Your task to perform on an android device: turn off improve location accuracy Image 0: 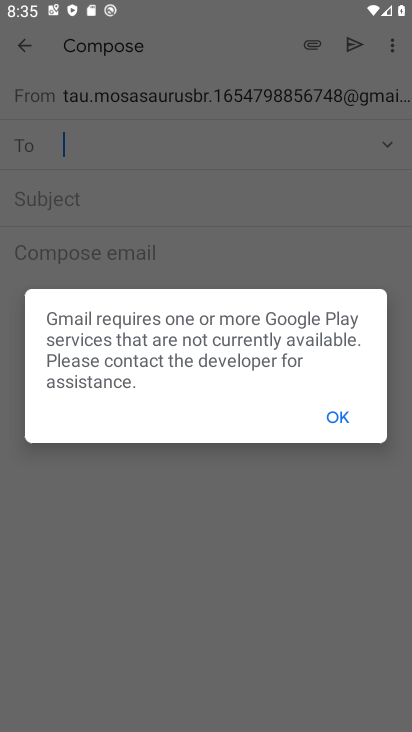
Step 0: press home button
Your task to perform on an android device: turn off improve location accuracy Image 1: 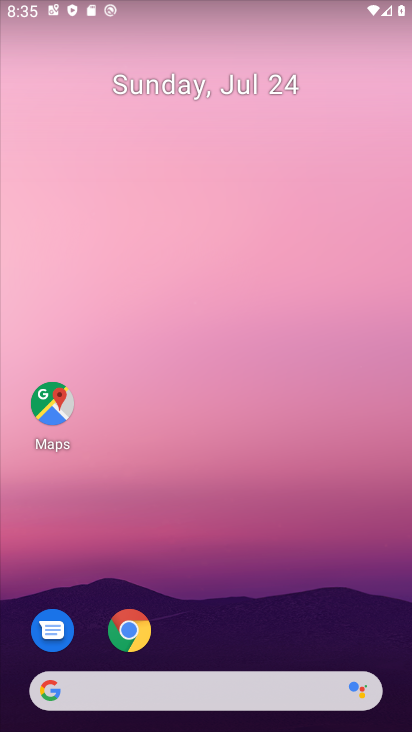
Step 1: drag from (177, 619) to (177, 97)
Your task to perform on an android device: turn off improve location accuracy Image 2: 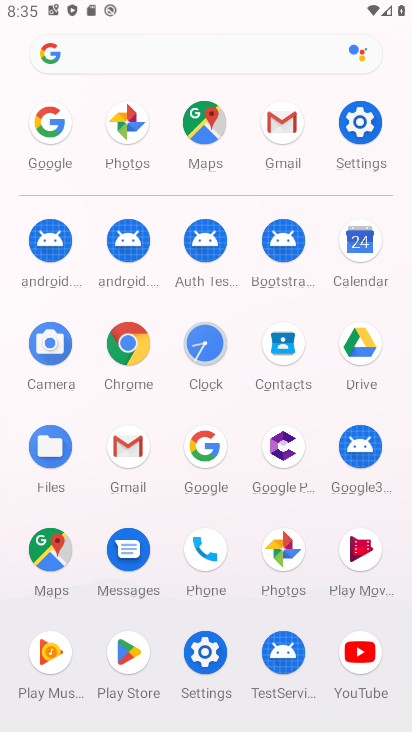
Step 2: click (347, 131)
Your task to perform on an android device: turn off improve location accuracy Image 3: 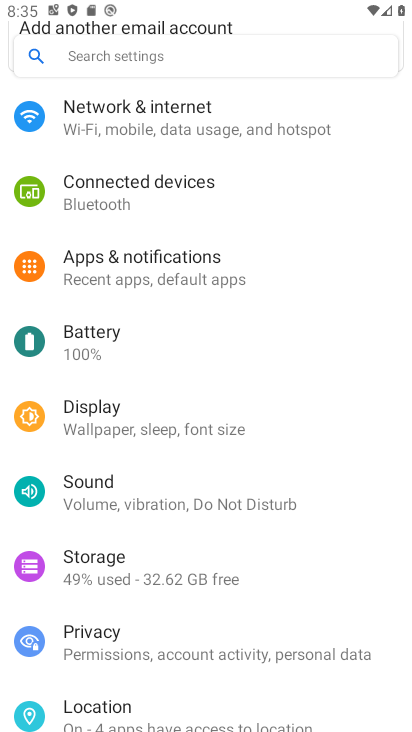
Step 3: click (142, 701)
Your task to perform on an android device: turn off improve location accuracy Image 4: 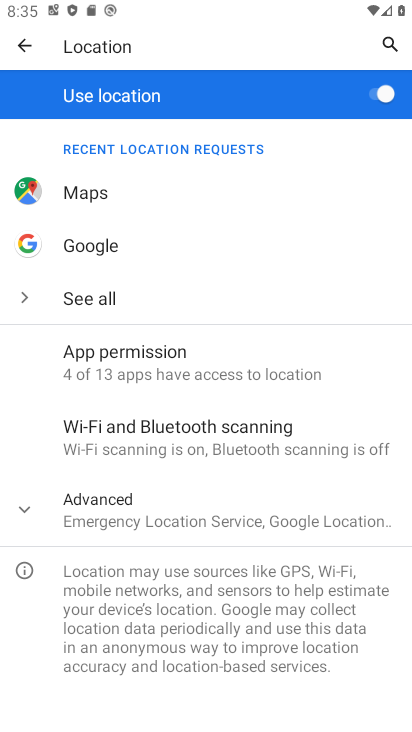
Step 4: click (129, 502)
Your task to perform on an android device: turn off improve location accuracy Image 5: 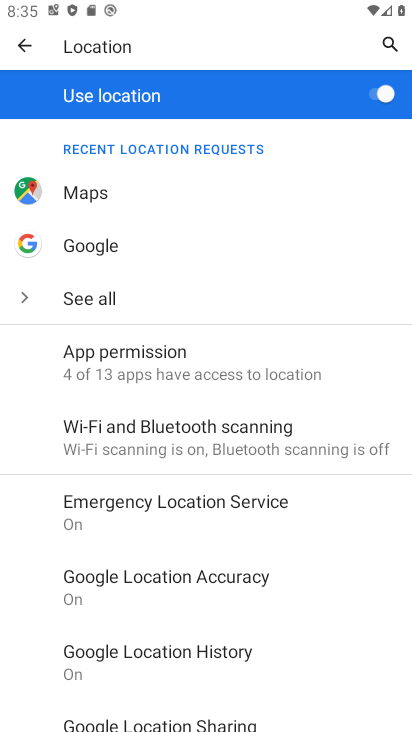
Step 5: click (204, 577)
Your task to perform on an android device: turn off improve location accuracy Image 6: 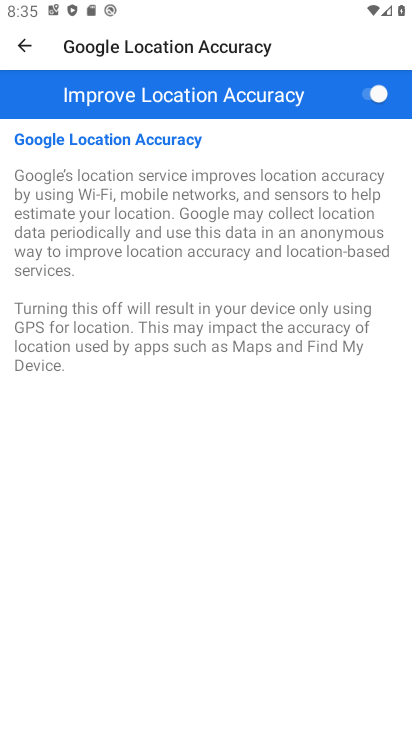
Step 6: click (380, 92)
Your task to perform on an android device: turn off improve location accuracy Image 7: 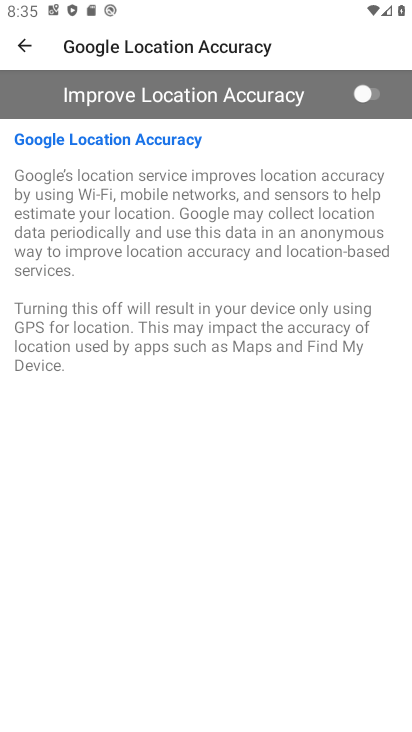
Step 7: task complete